Your task to perform on an android device: What's the weather going to be tomorrow? Image 0: 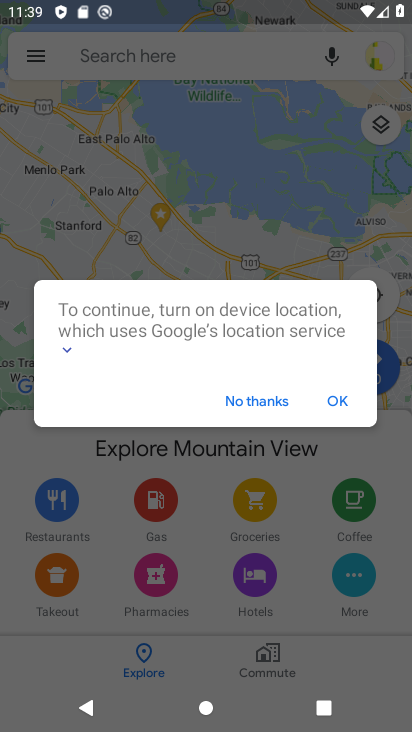
Step 0: click (283, 405)
Your task to perform on an android device: What's the weather going to be tomorrow? Image 1: 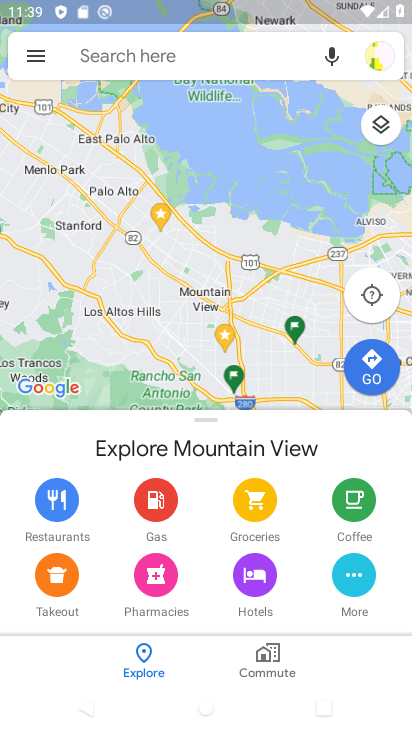
Step 1: press home button
Your task to perform on an android device: What's the weather going to be tomorrow? Image 2: 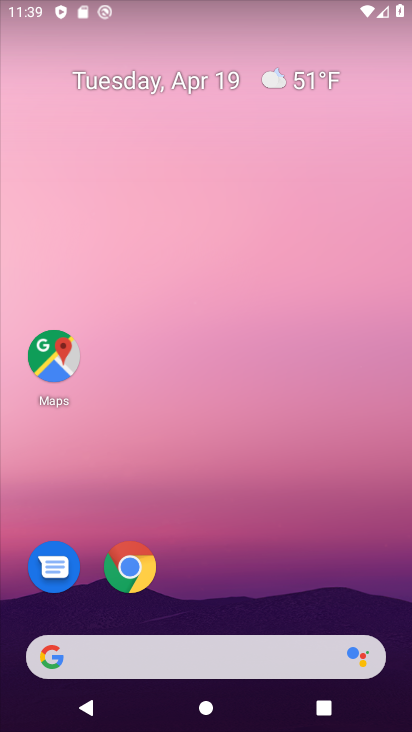
Step 2: click (310, 76)
Your task to perform on an android device: What's the weather going to be tomorrow? Image 3: 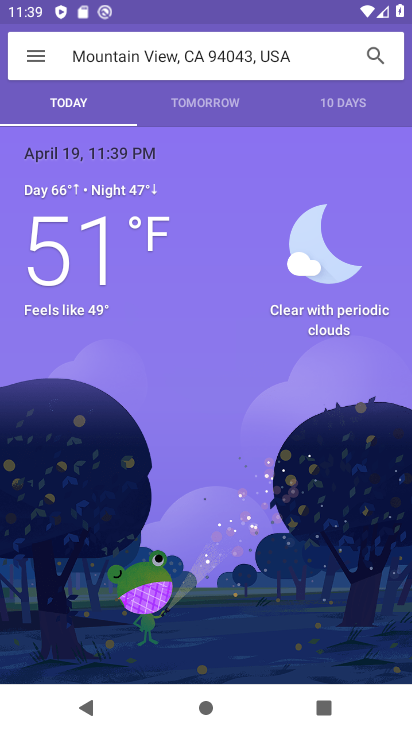
Step 3: click (212, 105)
Your task to perform on an android device: What's the weather going to be tomorrow? Image 4: 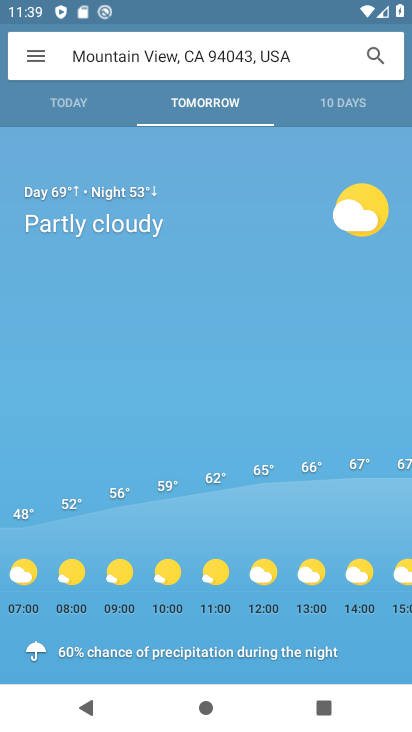
Step 4: task complete